Your task to perform on an android device: empty trash in google photos Image 0: 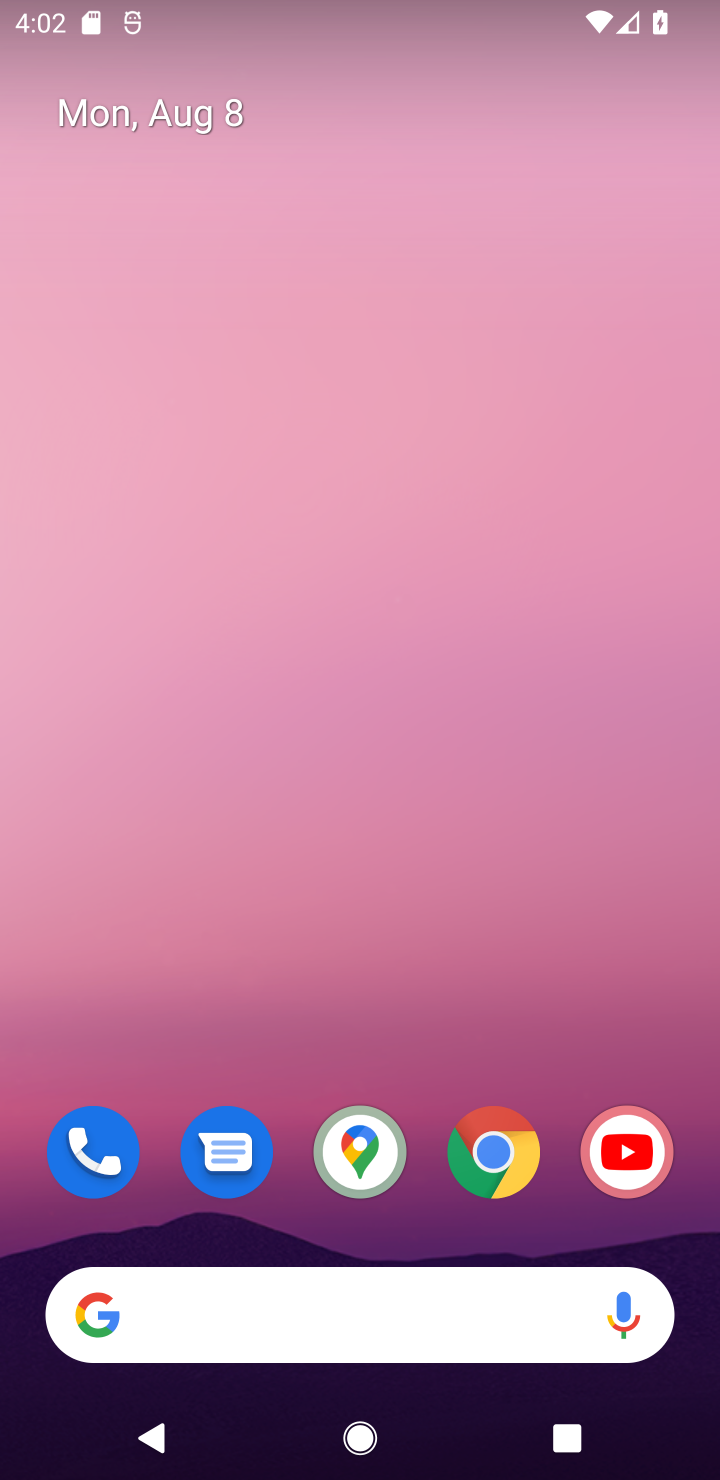
Step 0: click (450, 177)
Your task to perform on an android device: empty trash in google photos Image 1: 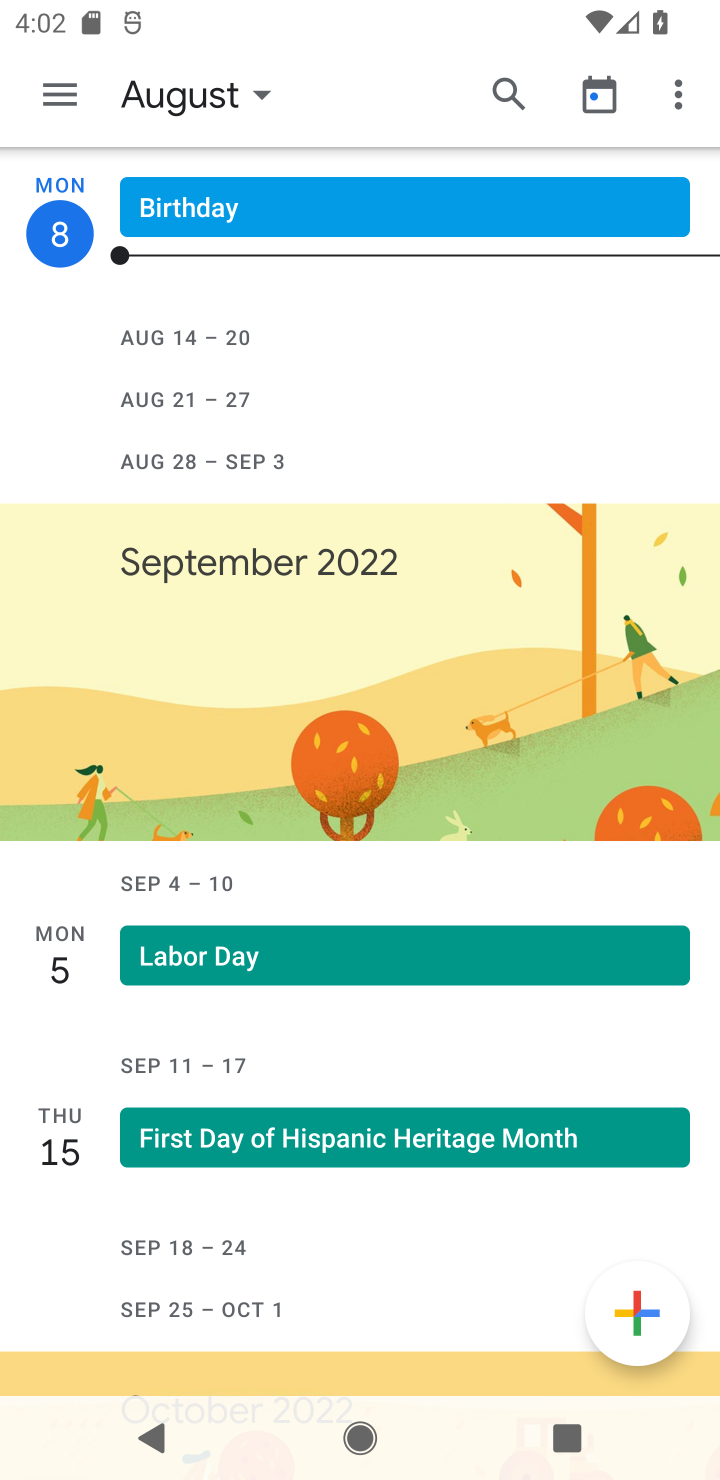
Step 1: press back button
Your task to perform on an android device: empty trash in google photos Image 2: 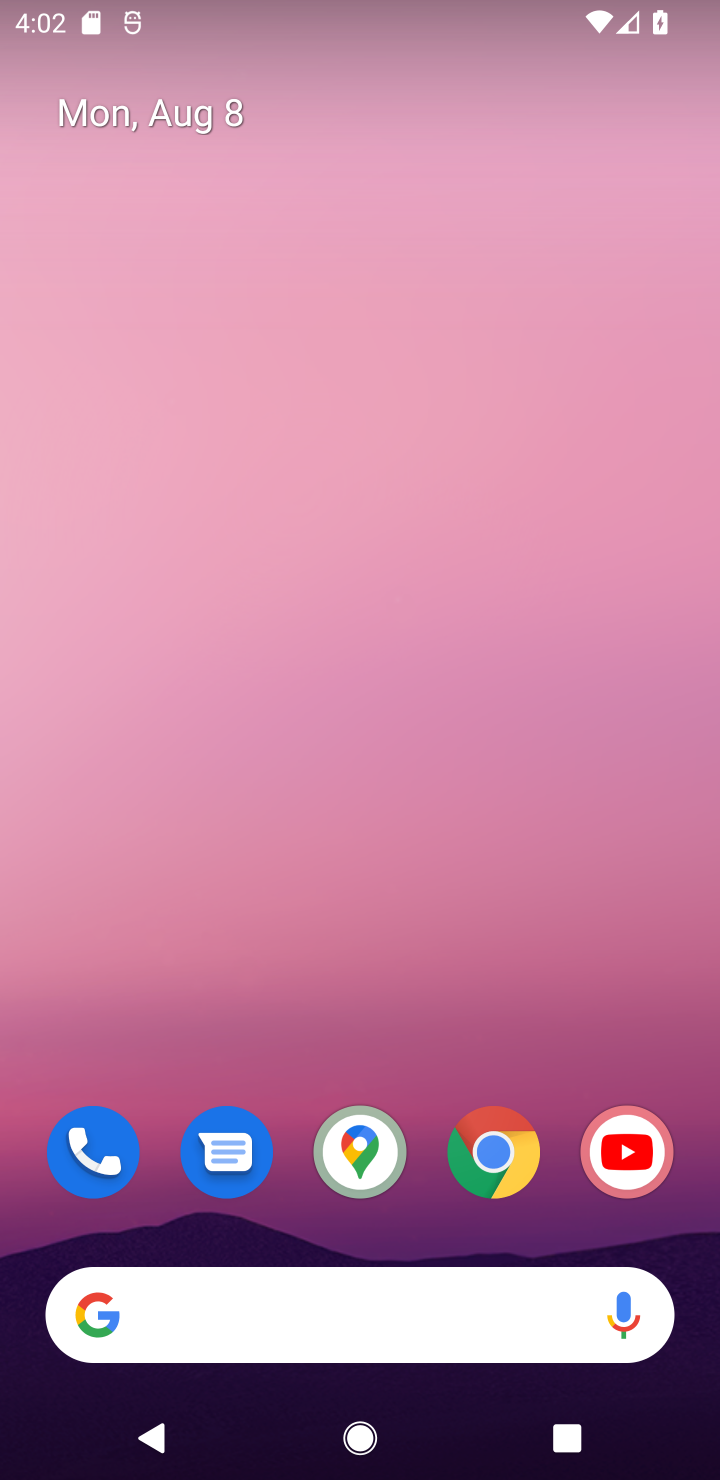
Step 2: drag from (326, 1105) to (532, 168)
Your task to perform on an android device: empty trash in google photos Image 3: 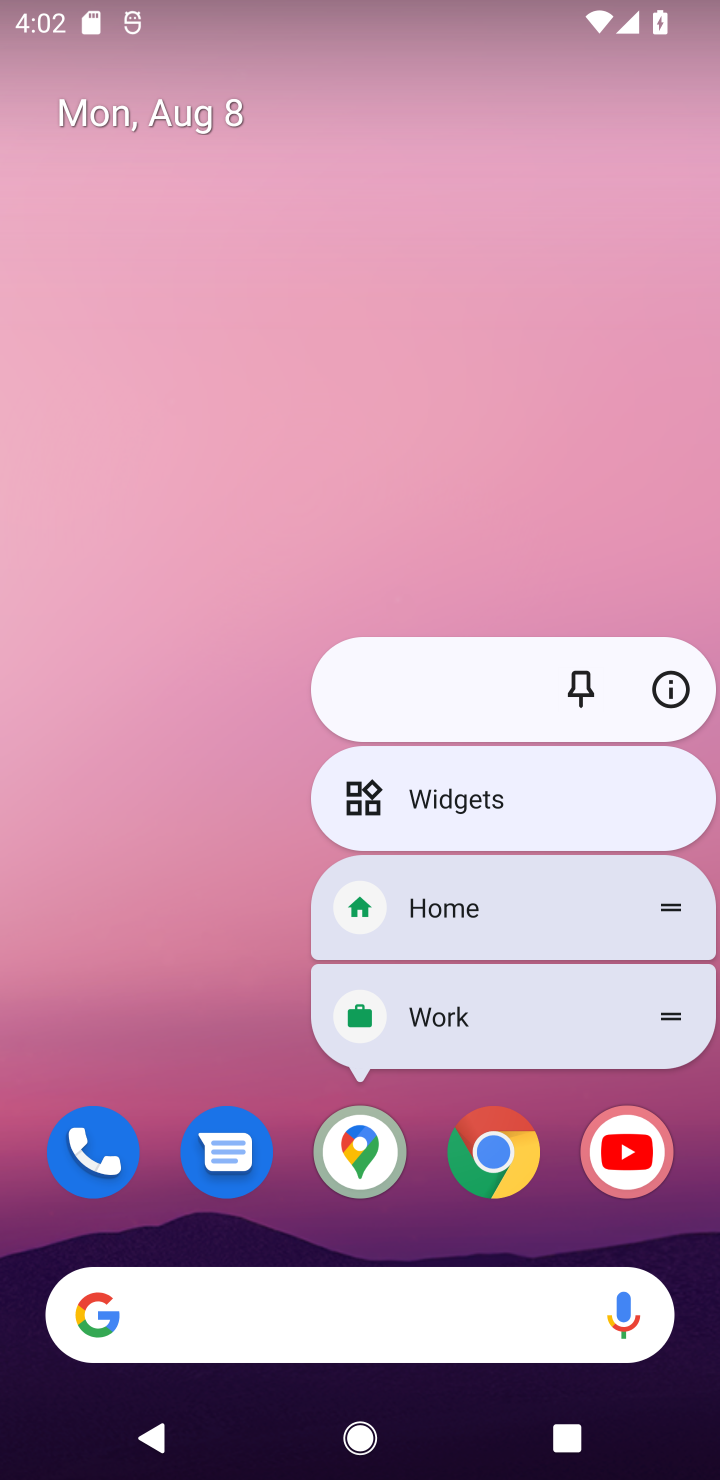
Step 3: click (156, 791)
Your task to perform on an android device: empty trash in google photos Image 4: 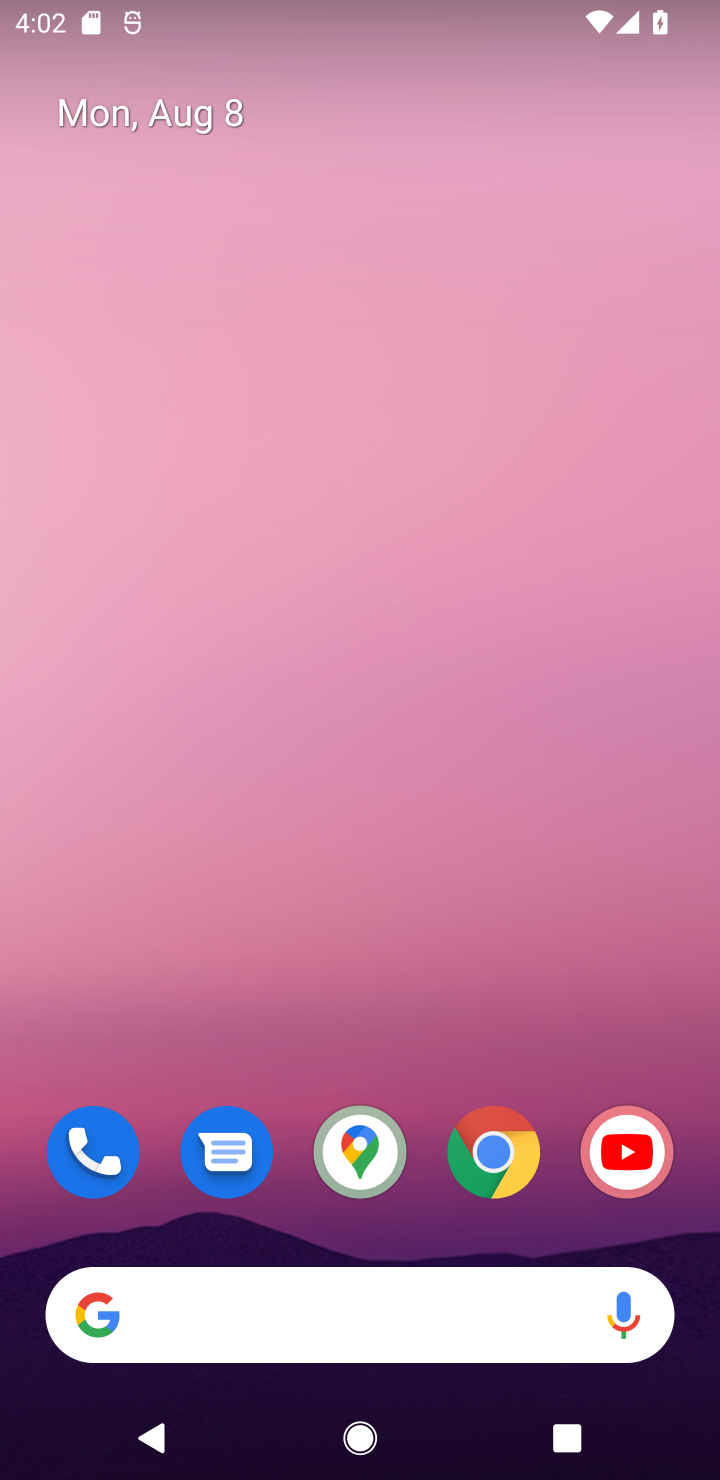
Step 4: click (510, 159)
Your task to perform on an android device: empty trash in google photos Image 5: 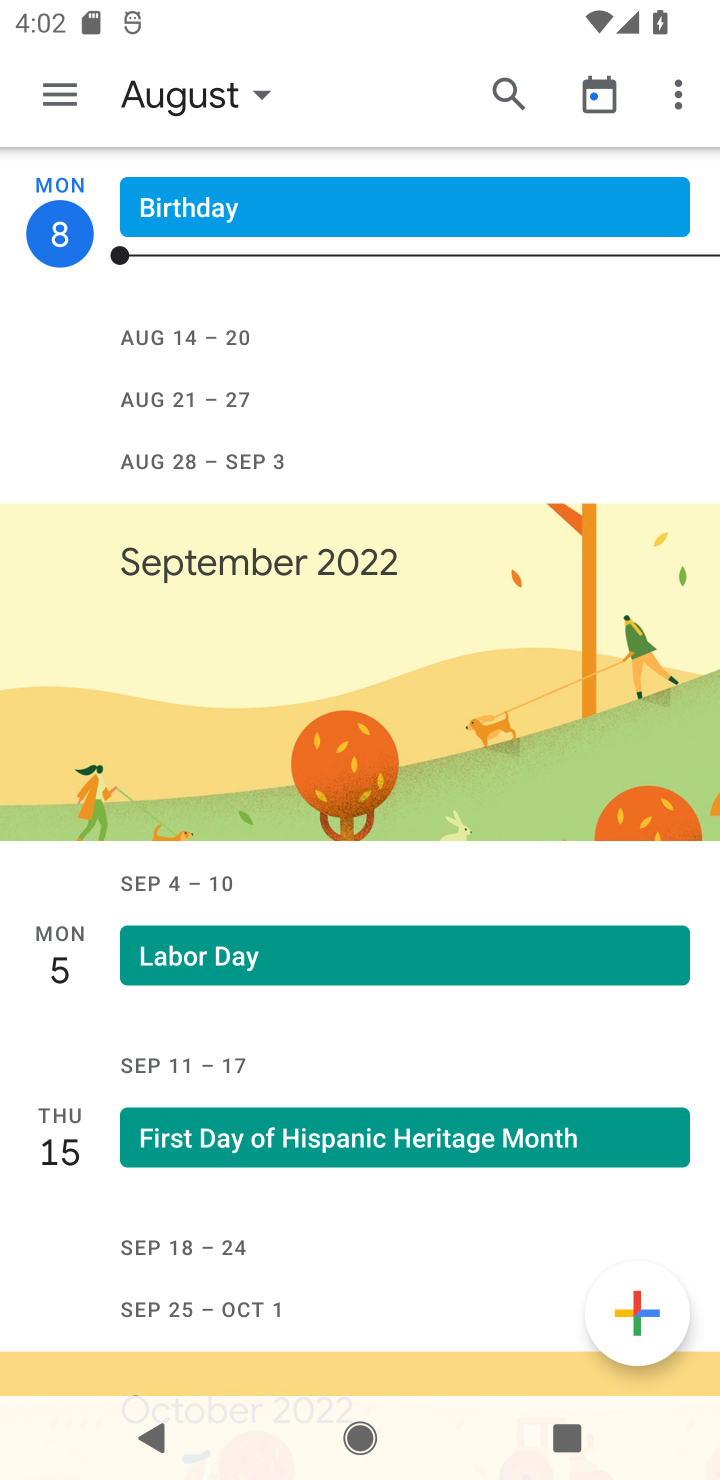
Step 5: press back button
Your task to perform on an android device: empty trash in google photos Image 6: 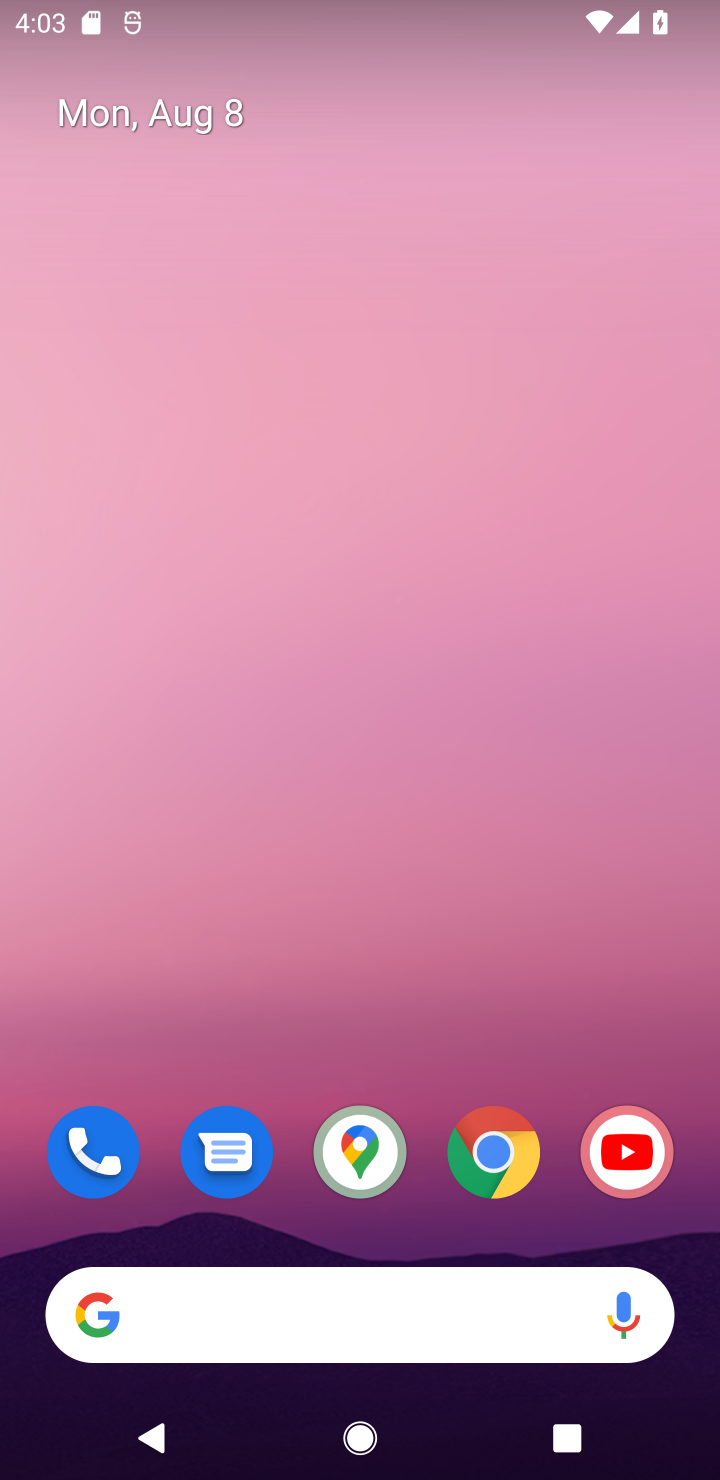
Step 6: drag from (420, 1120) to (509, 259)
Your task to perform on an android device: empty trash in google photos Image 7: 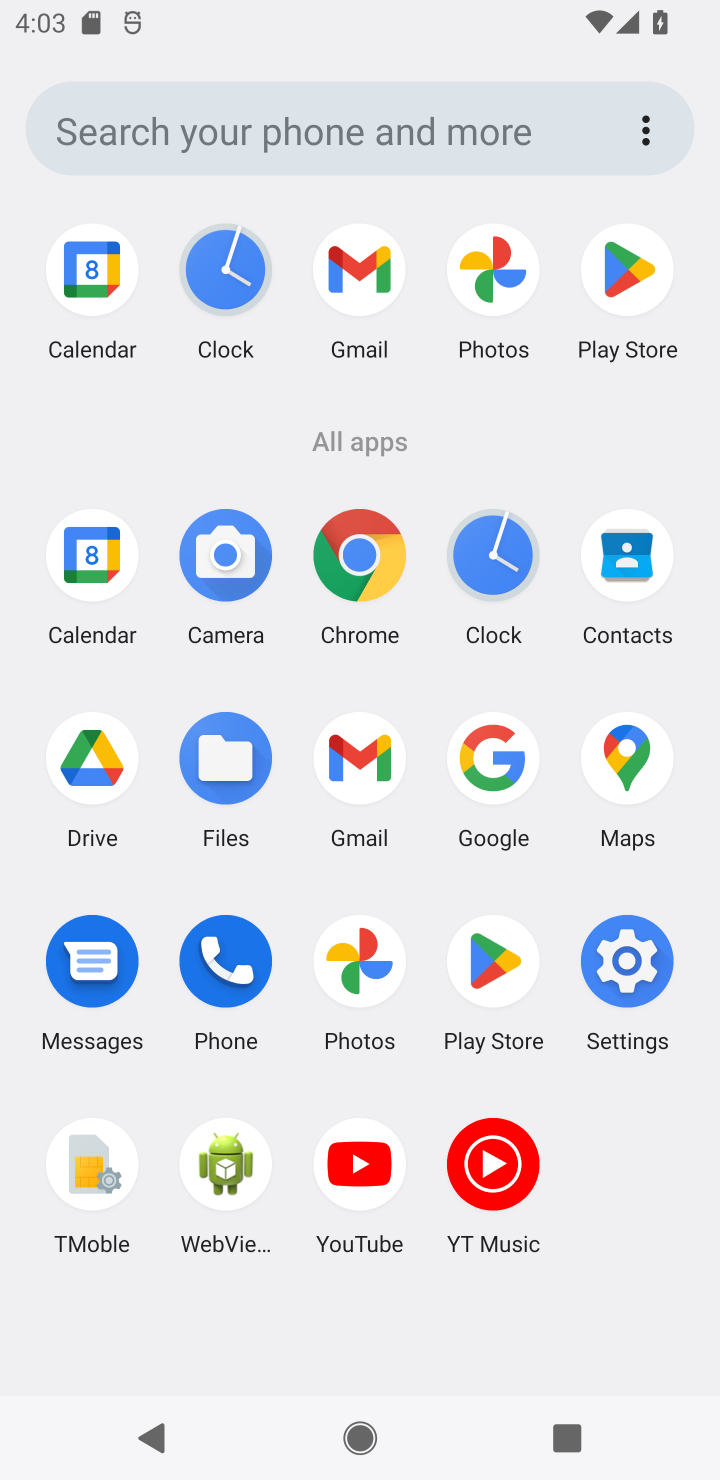
Step 7: click (369, 960)
Your task to perform on an android device: empty trash in google photos Image 8: 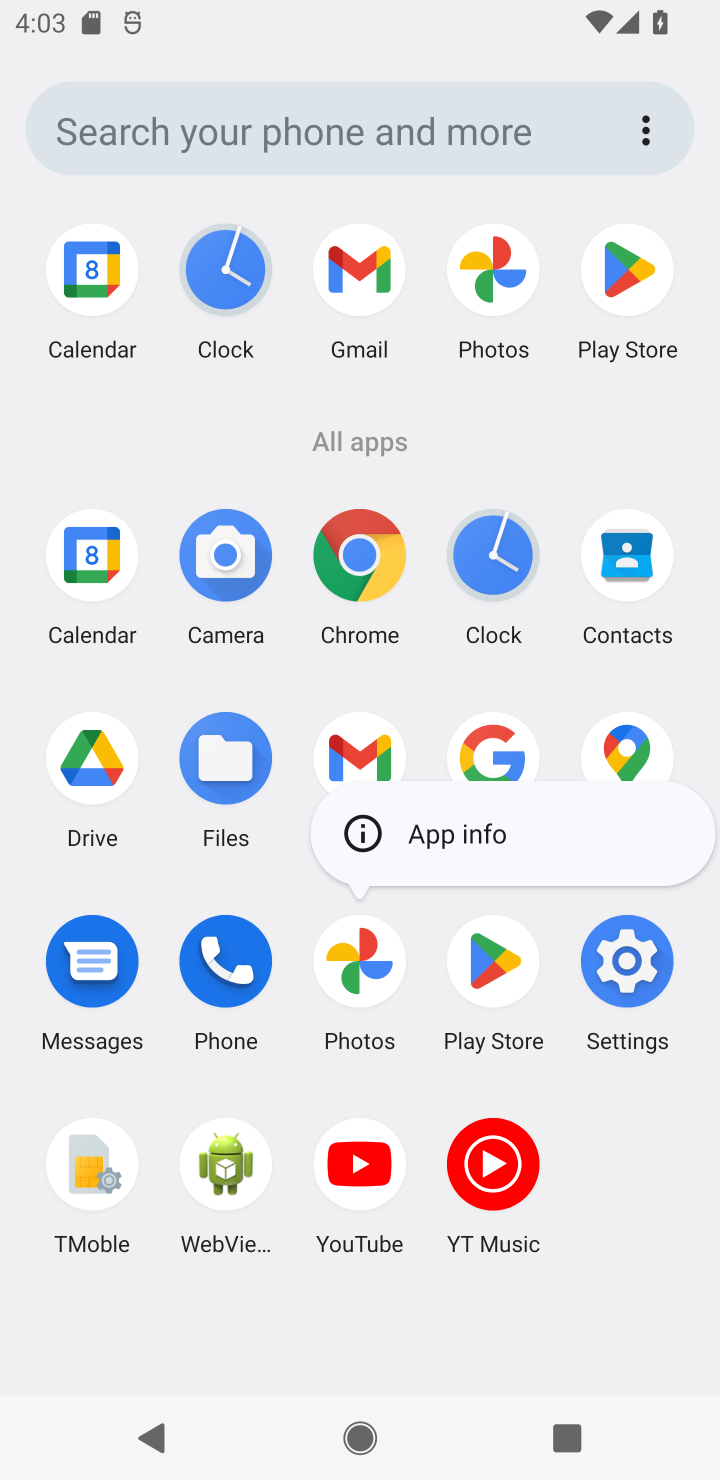
Step 8: click (374, 960)
Your task to perform on an android device: empty trash in google photos Image 9: 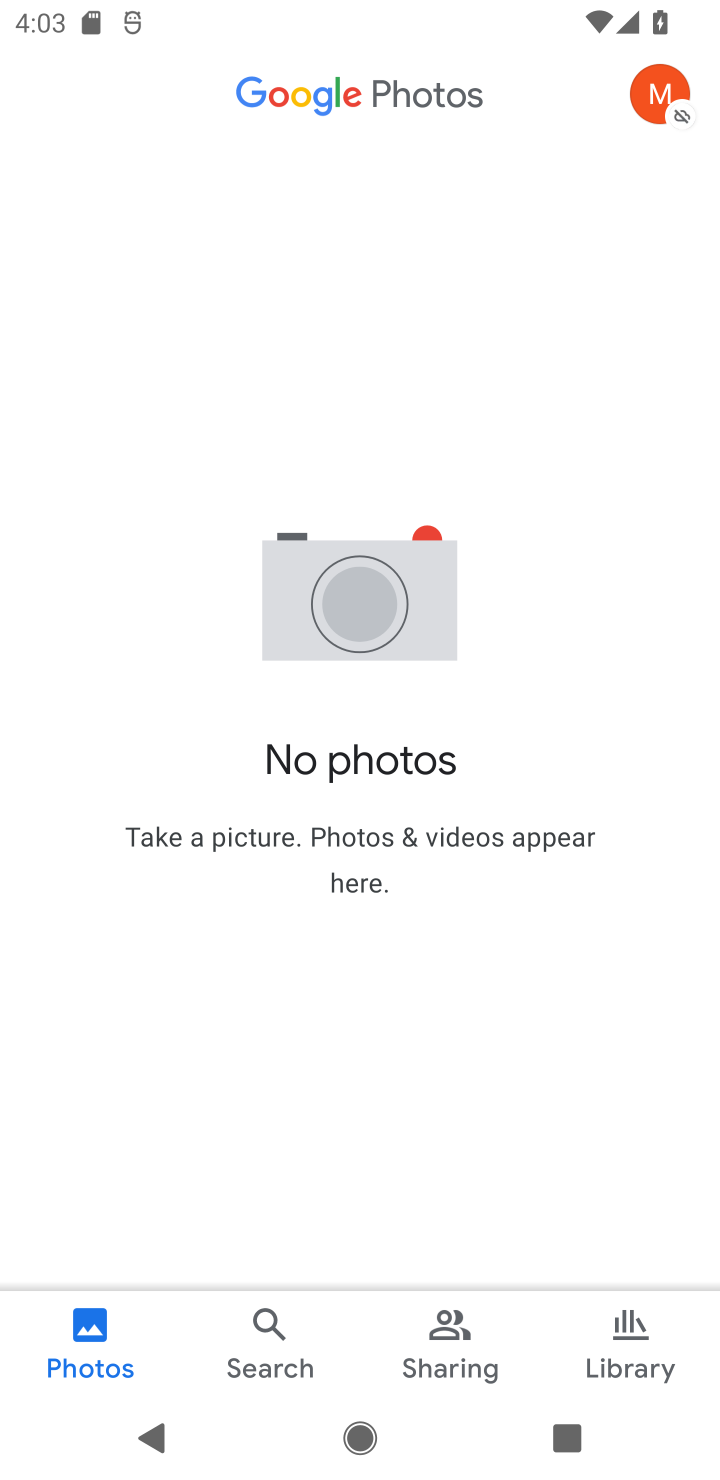
Step 9: click (634, 88)
Your task to perform on an android device: empty trash in google photos Image 10: 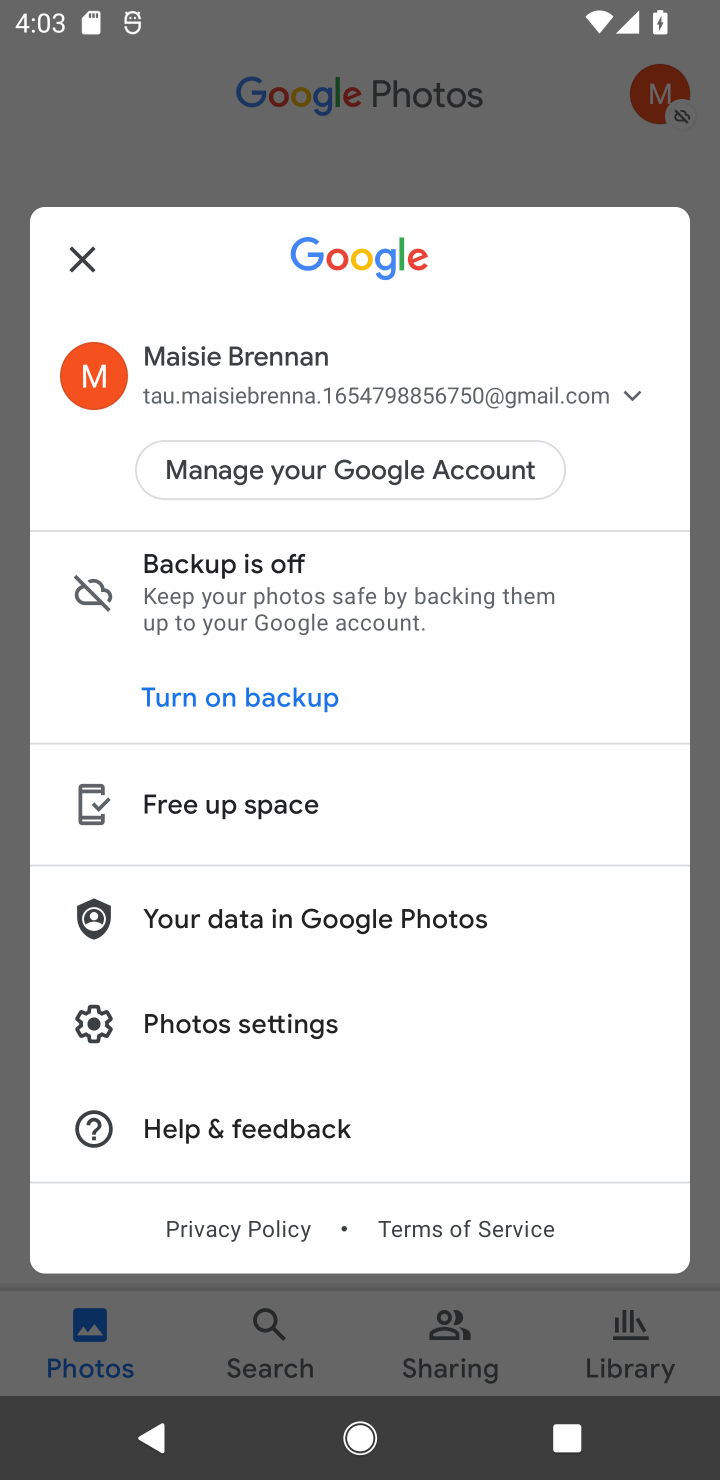
Step 10: task complete